Your task to perform on an android device: Find coffee shops on Maps Image 0: 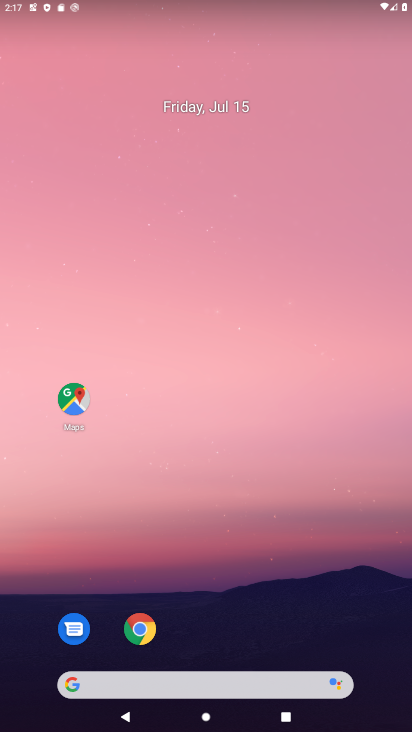
Step 0: click (72, 400)
Your task to perform on an android device: Find coffee shops on Maps Image 1: 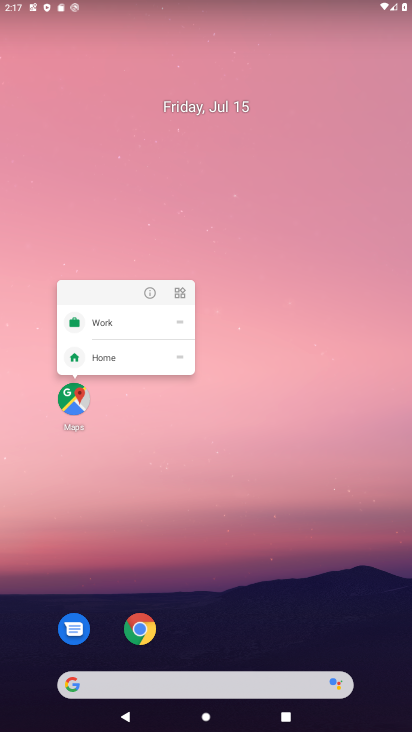
Step 1: click (237, 513)
Your task to perform on an android device: Find coffee shops on Maps Image 2: 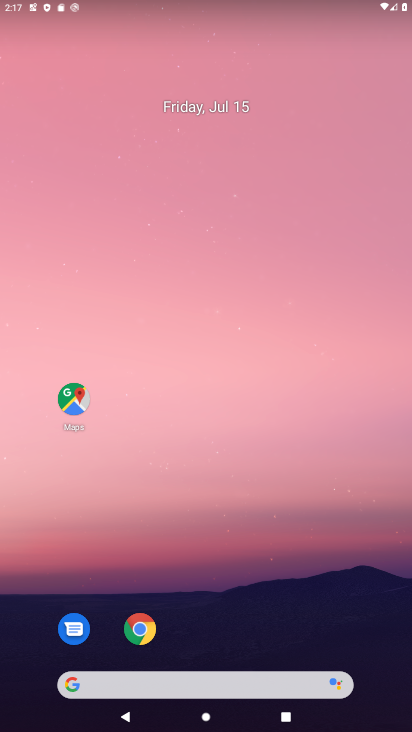
Step 2: click (76, 402)
Your task to perform on an android device: Find coffee shops on Maps Image 3: 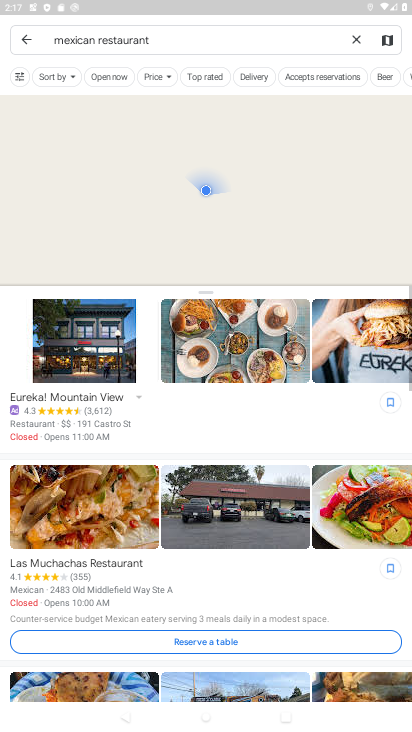
Step 3: click (359, 36)
Your task to perform on an android device: Find coffee shops on Maps Image 4: 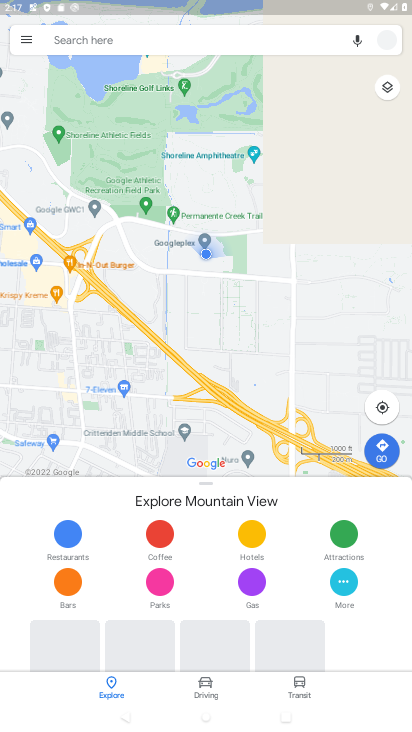
Step 4: click (201, 44)
Your task to perform on an android device: Find coffee shops on Maps Image 5: 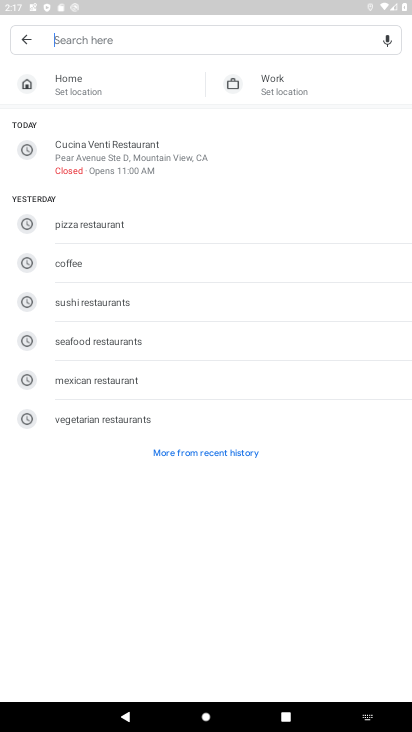
Step 5: click (99, 260)
Your task to perform on an android device: Find coffee shops on Maps Image 6: 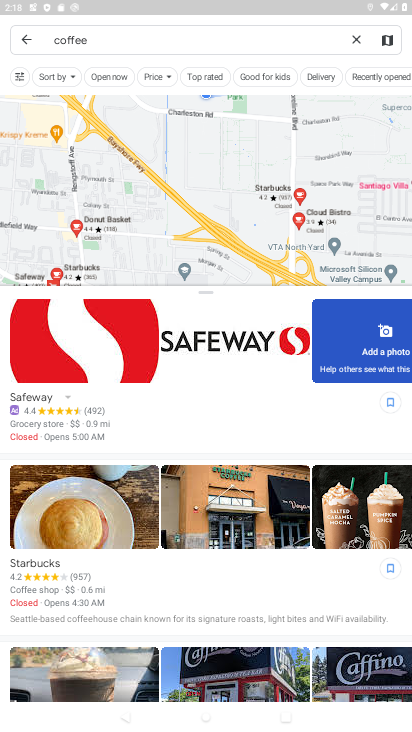
Step 6: task complete